Your task to perform on an android device: search for starred emails in the gmail app Image 0: 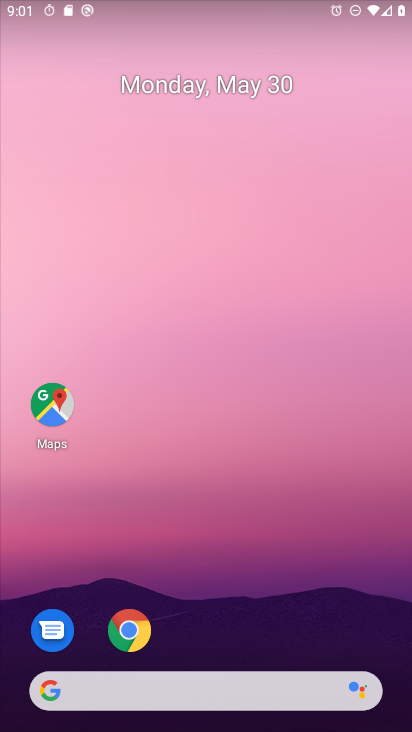
Step 0: drag from (353, 620) to (266, 58)
Your task to perform on an android device: search for starred emails in the gmail app Image 1: 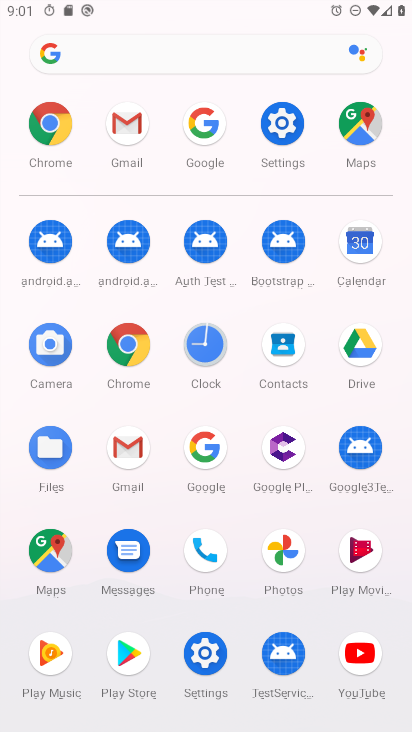
Step 1: click (118, 457)
Your task to perform on an android device: search for starred emails in the gmail app Image 2: 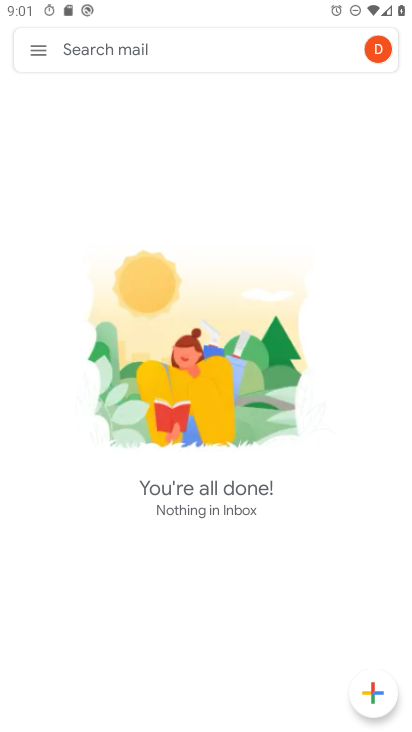
Step 2: click (38, 41)
Your task to perform on an android device: search for starred emails in the gmail app Image 3: 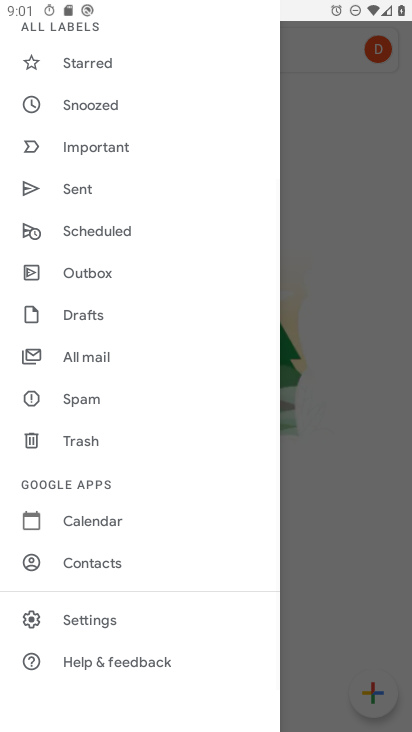
Step 3: click (105, 60)
Your task to perform on an android device: search for starred emails in the gmail app Image 4: 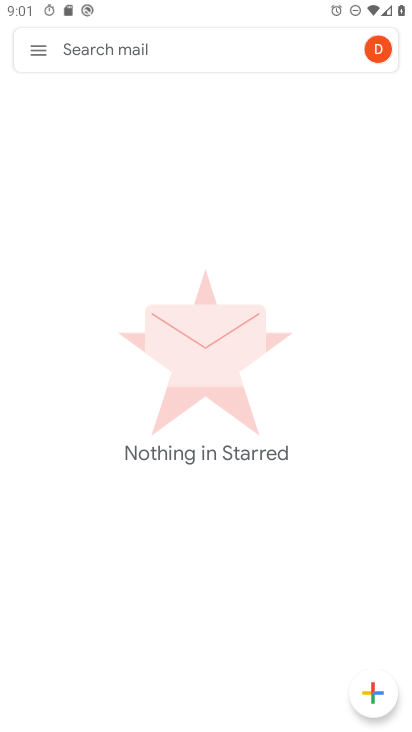
Step 4: task complete